Your task to perform on an android device: Set the phone to "Do not disturb". Image 0: 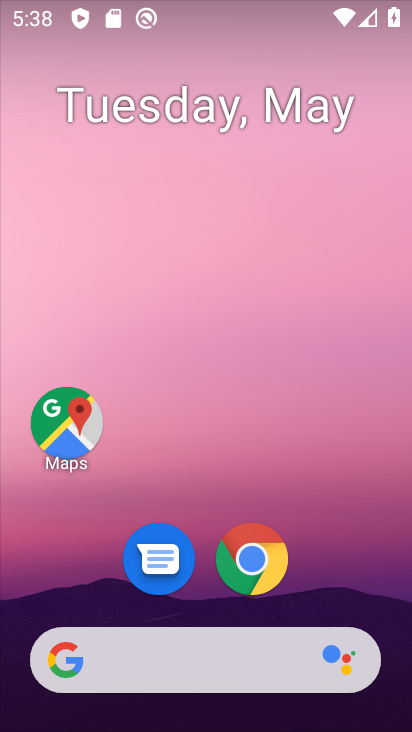
Step 0: drag from (185, 599) to (288, 313)
Your task to perform on an android device: Set the phone to "Do not disturb". Image 1: 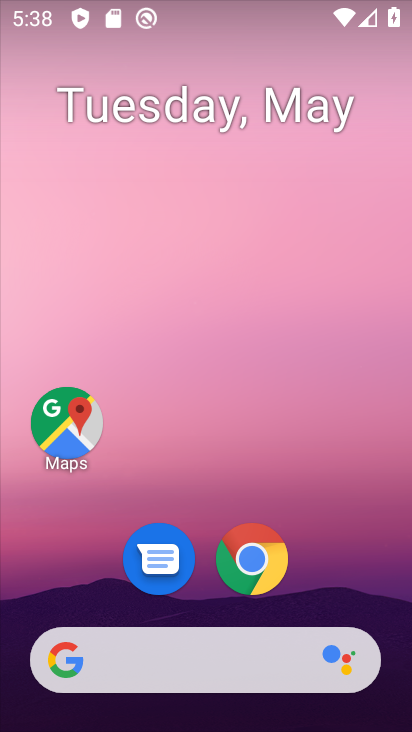
Step 1: drag from (210, 602) to (288, 308)
Your task to perform on an android device: Set the phone to "Do not disturb". Image 2: 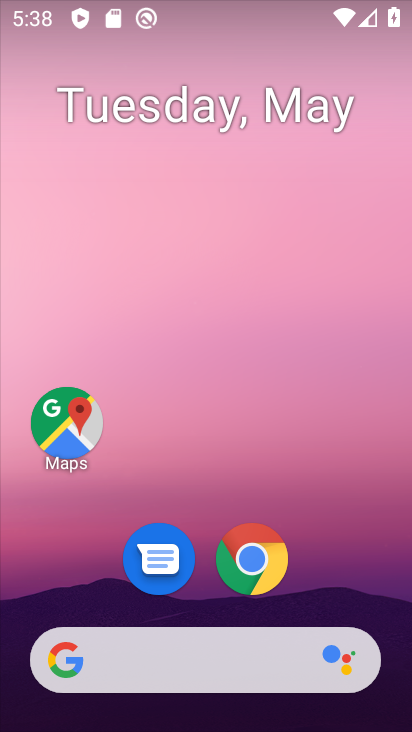
Step 2: drag from (196, 604) to (277, 152)
Your task to perform on an android device: Set the phone to "Do not disturb". Image 3: 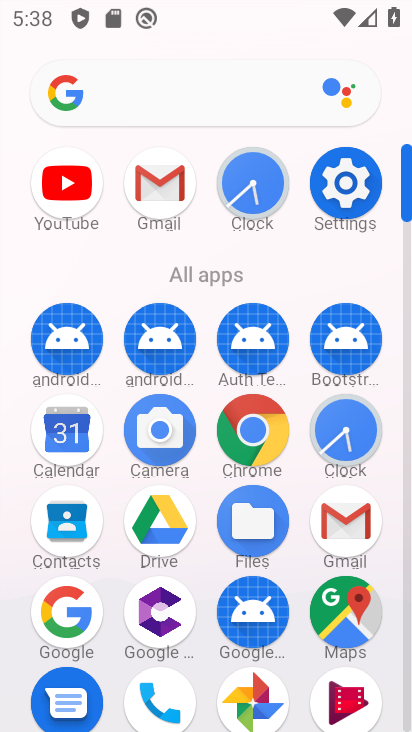
Step 3: click (346, 193)
Your task to perform on an android device: Set the phone to "Do not disturb". Image 4: 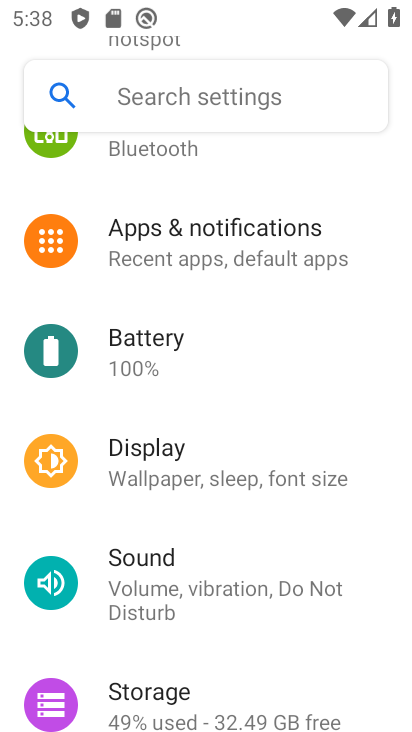
Step 4: drag from (259, 302) to (271, 489)
Your task to perform on an android device: Set the phone to "Do not disturb". Image 5: 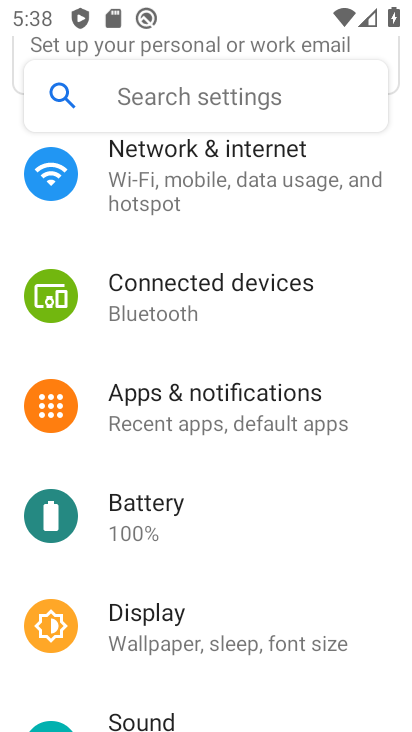
Step 5: drag from (249, 357) to (249, 567)
Your task to perform on an android device: Set the phone to "Do not disturb". Image 6: 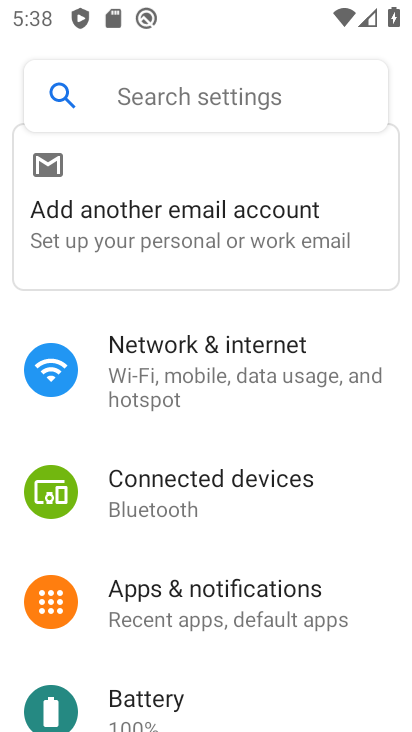
Step 6: drag from (206, 642) to (272, 272)
Your task to perform on an android device: Set the phone to "Do not disturb". Image 7: 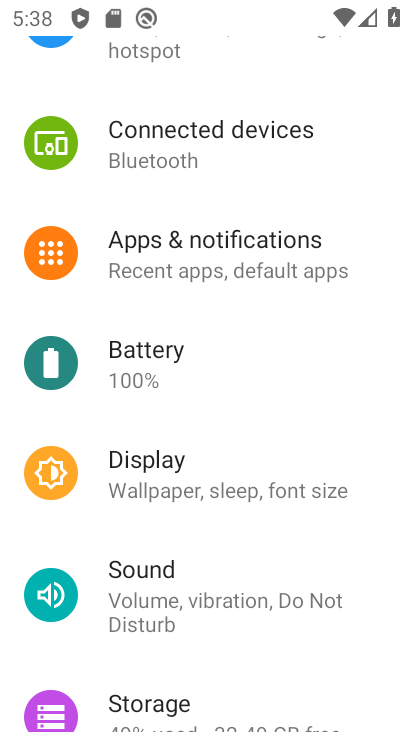
Step 7: click (212, 614)
Your task to perform on an android device: Set the phone to "Do not disturb". Image 8: 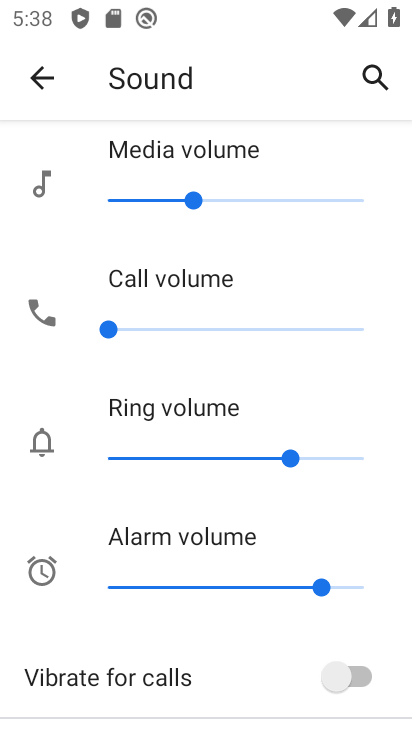
Step 8: drag from (213, 649) to (261, 315)
Your task to perform on an android device: Set the phone to "Do not disturb". Image 9: 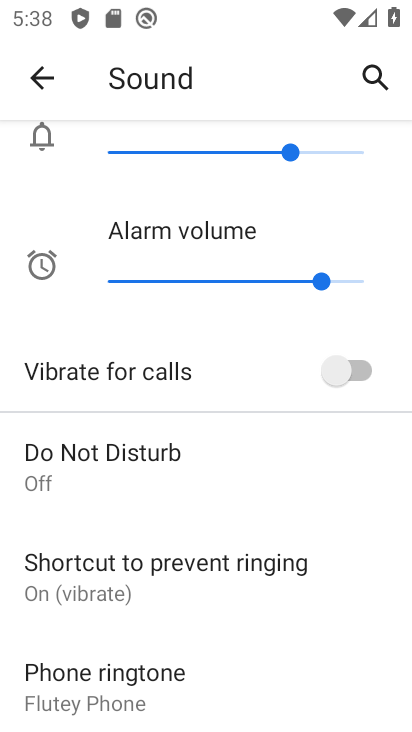
Step 9: click (133, 467)
Your task to perform on an android device: Set the phone to "Do not disturb". Image 10: 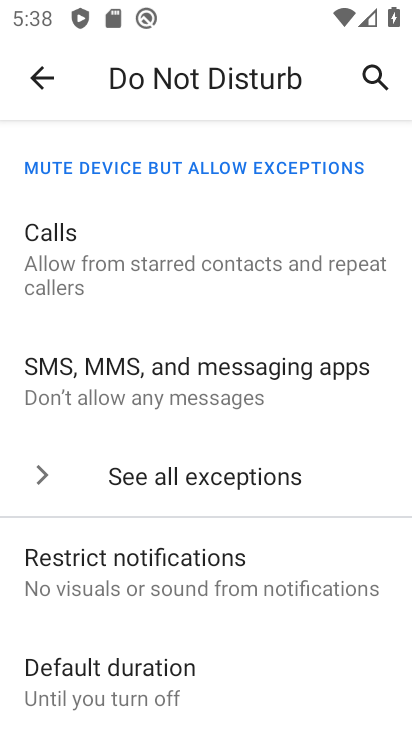
Step 10: drag from (228, 621) to (289, 379)
Your task to perform on an android device: Set the phone to "Do not disturb". Image 11: 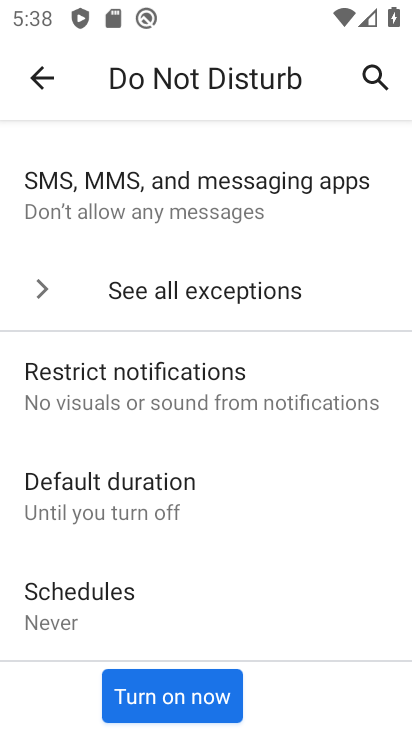
Step 11: click (155, 703)
Your task to perform on an android device: Set the phone to "Do not disturb". Image 12: 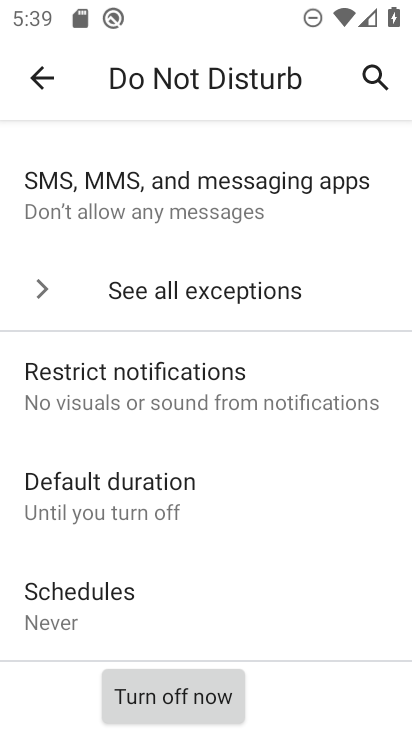
Step 12: task complete